Your task to perform on an android device: Do I have any events this weekend? Image 0: 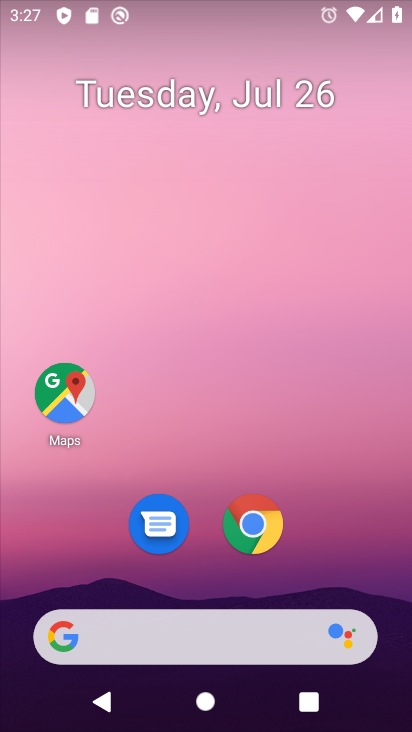
Step 0: drag from (335, 506) to (368, 20)
Your task to perform on an android device: Do I have any events this weekend? Image 1: 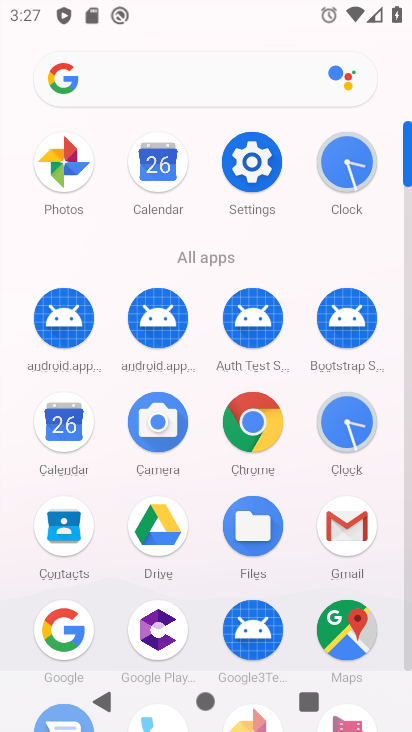
Step 1: click (161, 167)
Your task to perform on an android device: Do I have any events this weekend? Image 2: 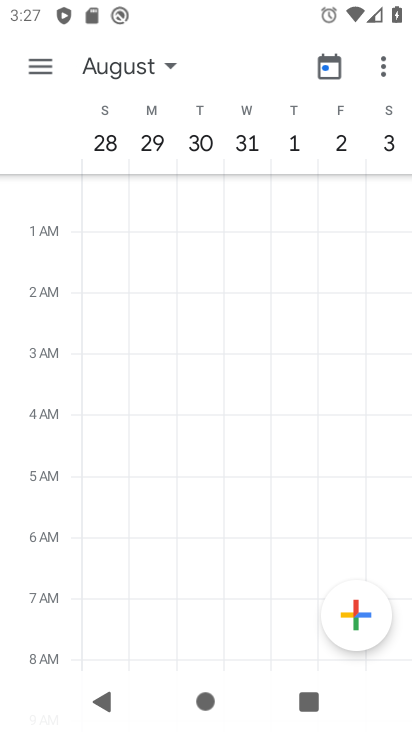
Step 2: task complete